Your task to perform on an android device: add a label to a message in the gmail app Image 0: 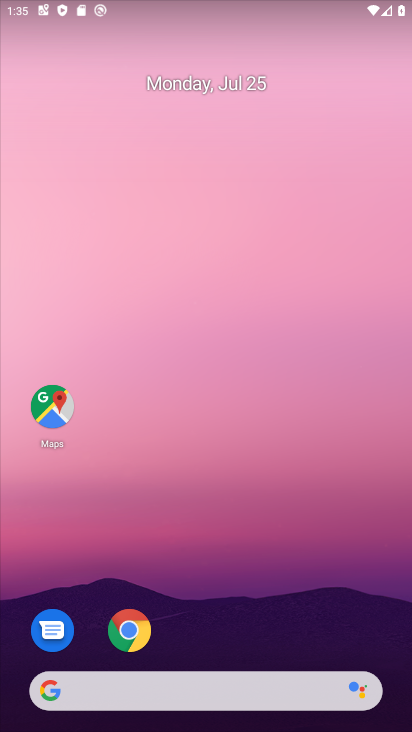
Step 0: drag from (295, 646) to (209, 20)
Your task to perform on an android device: add a label to a message in the gmail app Image 1: 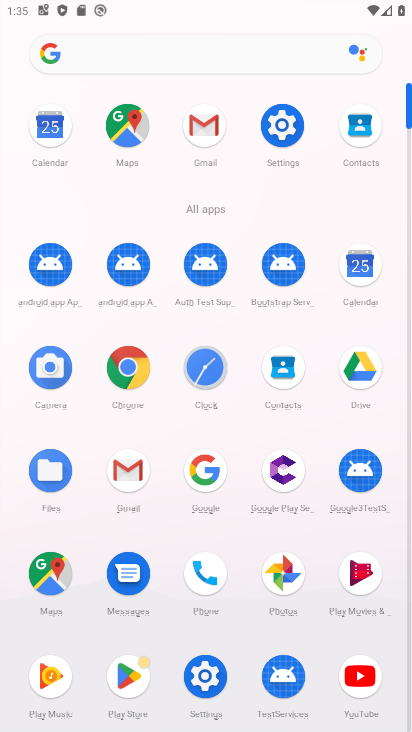
Step 1: click (211, 126)
Your task to perform on an android device: add a label to a message in the gmail app Image 2: 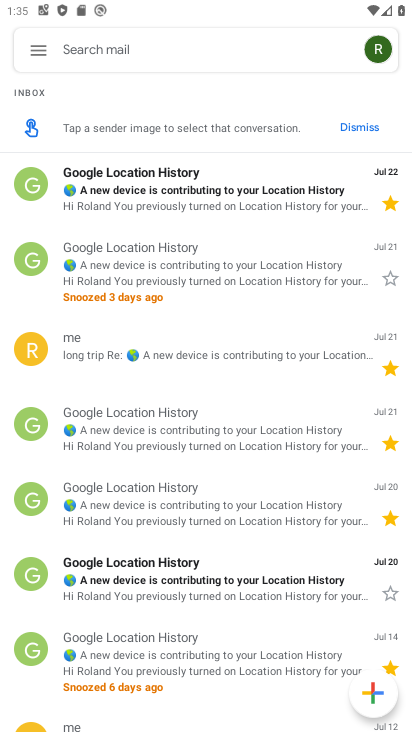
Step 2: task complete